Your task to perform on an android device: See recent photos Image 0: 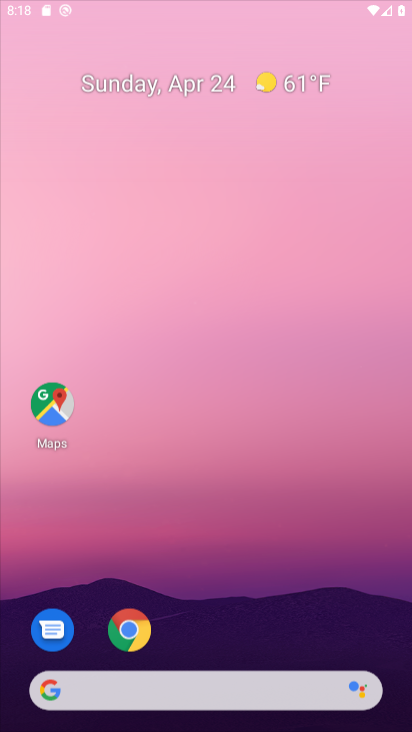
Step 0: drag from (333, 466) to (342, 176)
Your task to perform on an android device: See recent photos Image 1: 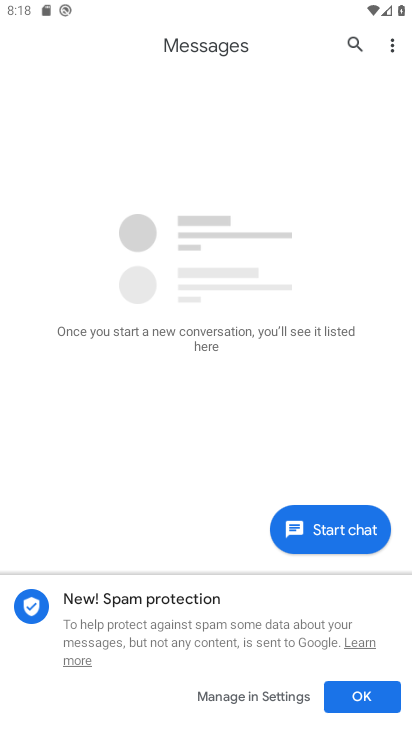
Step 1: press home button
Your task to perform on an android device: See recent photos Image 2: 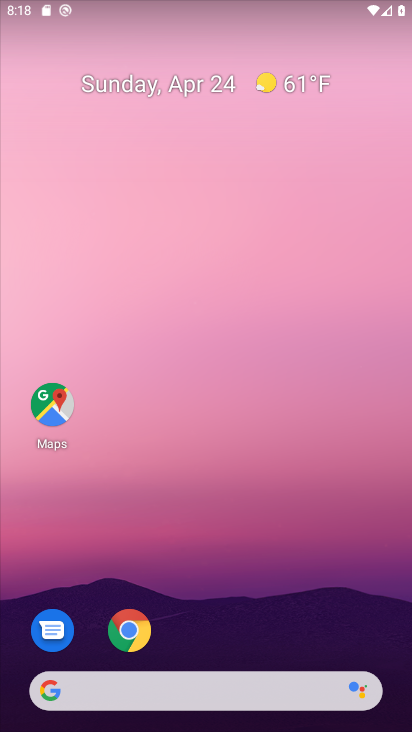
Step 2: drag from (323, 609) to (318, 72)
Your task to perform on an android device: See recent photos Image 3: 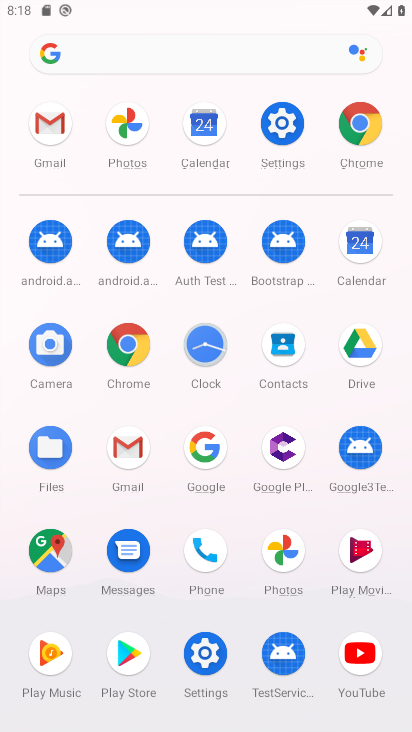
Step 3: click (130, 131)
Your task to perform on an android device: See recent photos Image 4: 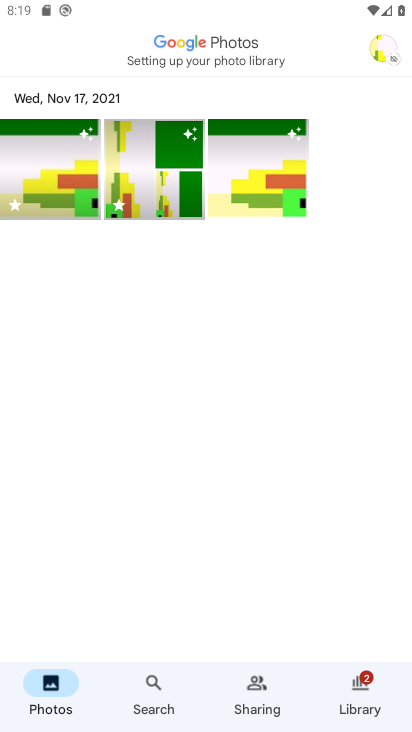
Step 4: click (50, 189)
Your task to perform on an android device: See recent photos Image 5: 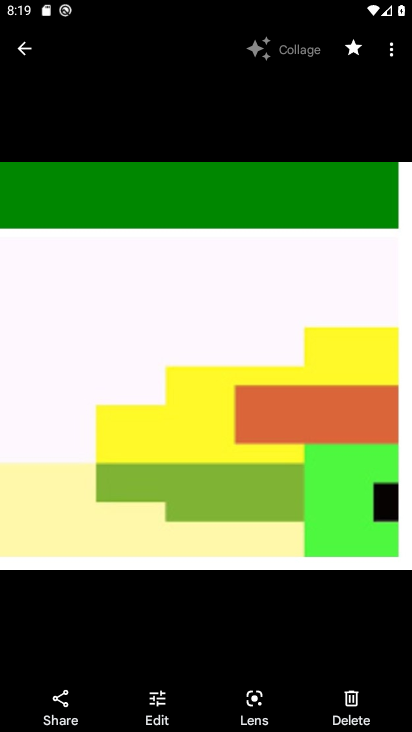
Step 5: task complete